Your task to perform on an android device: toggle wifi Image 0: 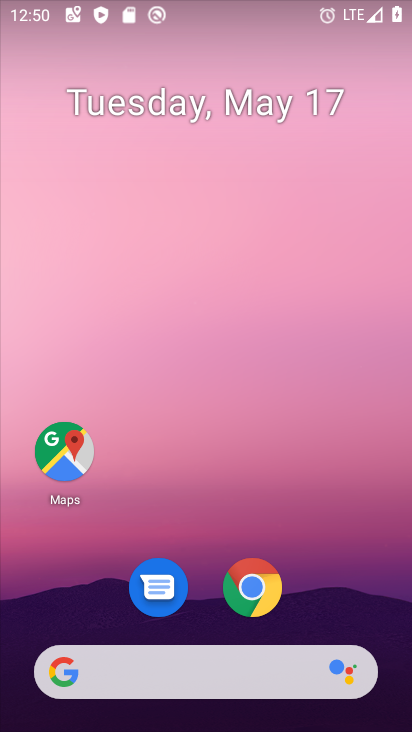
Step 0: drag from (391, 639) to (309, 142)
Your task to perform on an android device: toggle wifi Image 1: 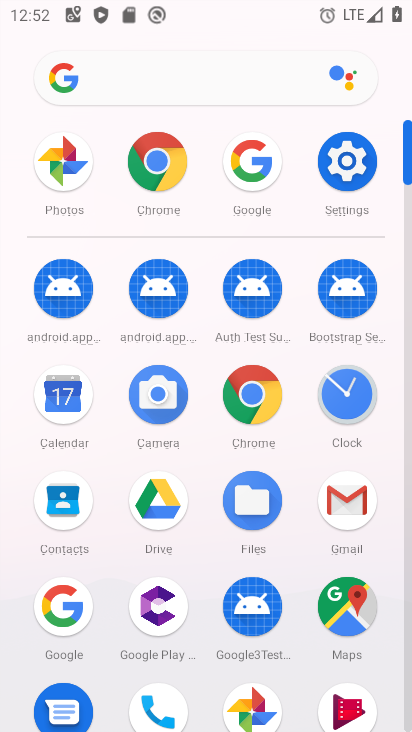
Step 1: drag from (236, 1) to (304, 460)
Your task to perform on an android device: toggle wifi Image 2: 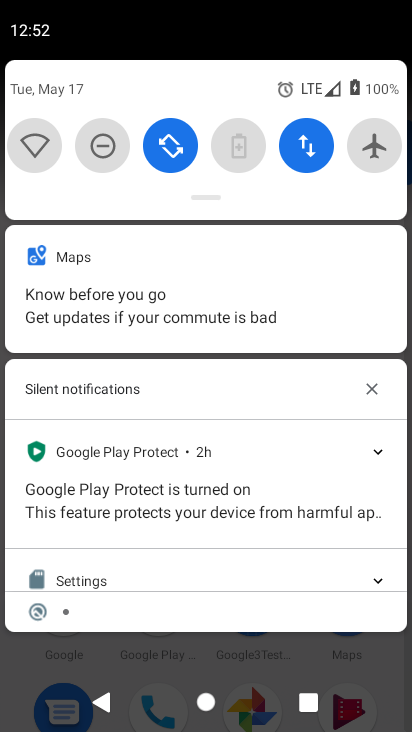
Step 2: click (47, 153)
Your task to perform on an android device: toggle wifi Image 3: 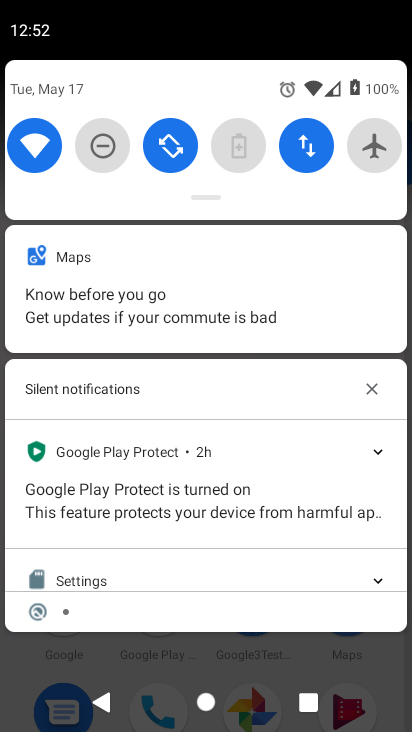
Step 3: task complete